Your task to perform on an android device: move a message to another label in the gmail app Image 0: 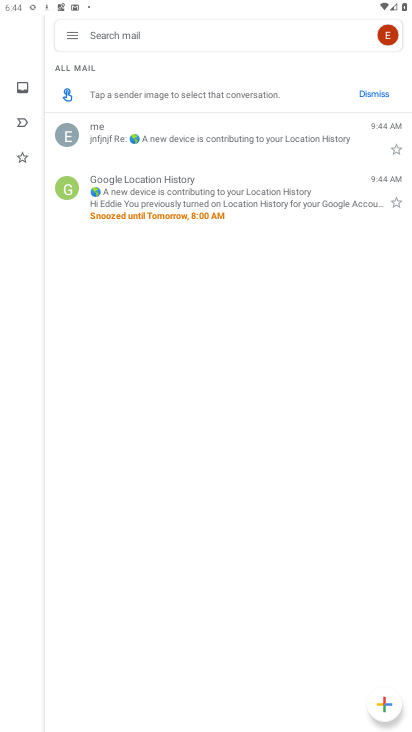
Step 0: click (125, 177)
Your task to perform on an android device: move a message to another label in the gmail app Image 1: 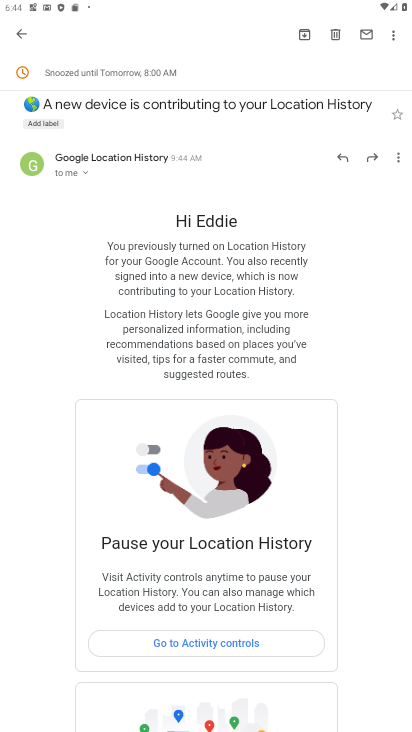
Step 1: click (394, 30)
Your task to perform on an android device: move a message to another label in the gmail app Image 2: 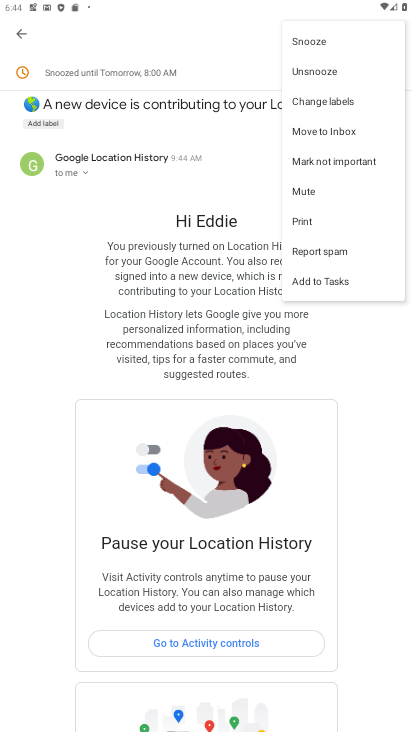
Step 2: click (331, 100)
Your task to perform on an android device: move a message to another label in the gmail app Image 3: 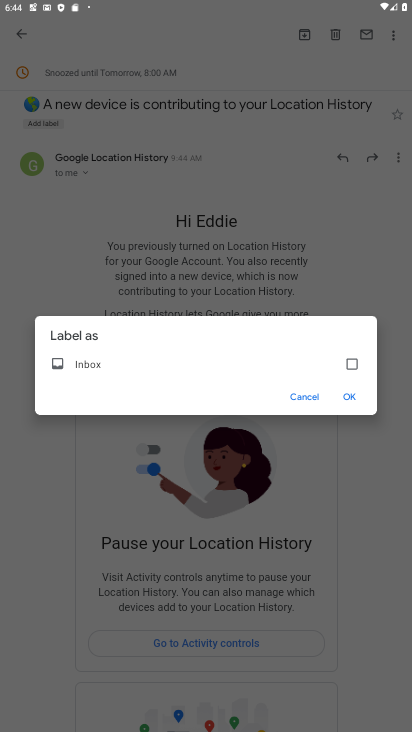
Step 3: click (347, 399)
Your task to perform on an android device: move a message to another label in the gmail app Image 4: 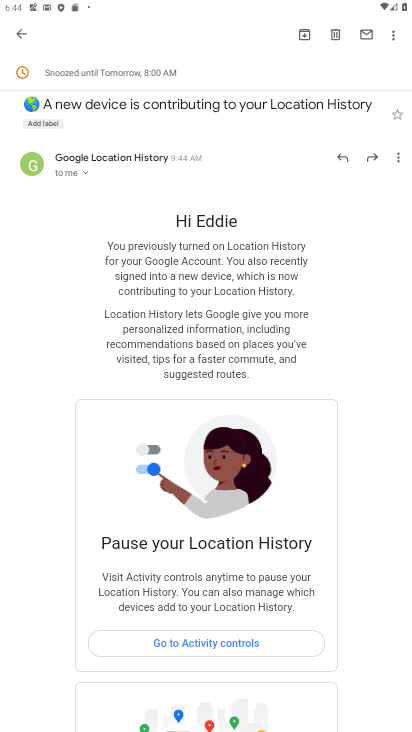
Step 4: task complete